Your task to perform on an android device: toggle notification dots Image 0: 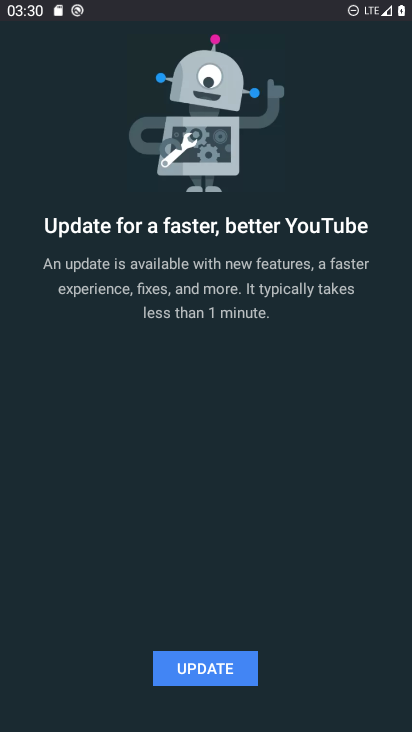
Step 0: press home button
Your task to perform on an android device: toggle notification dots Image 1: 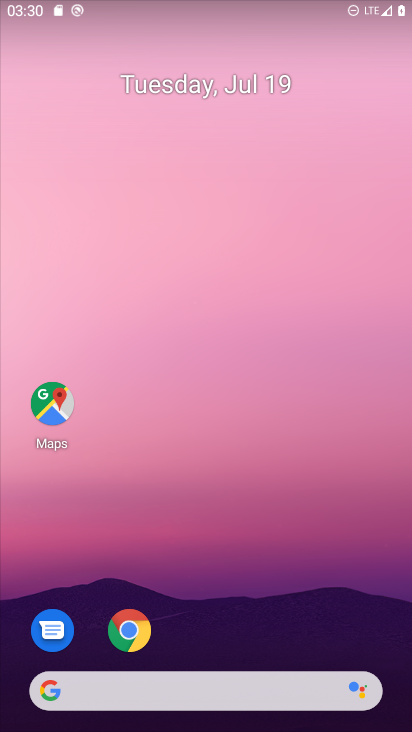
Step 1: drag from (378, 616) to (315, 197)
Your task to perform on an android device: toggle notification dots Image 2: 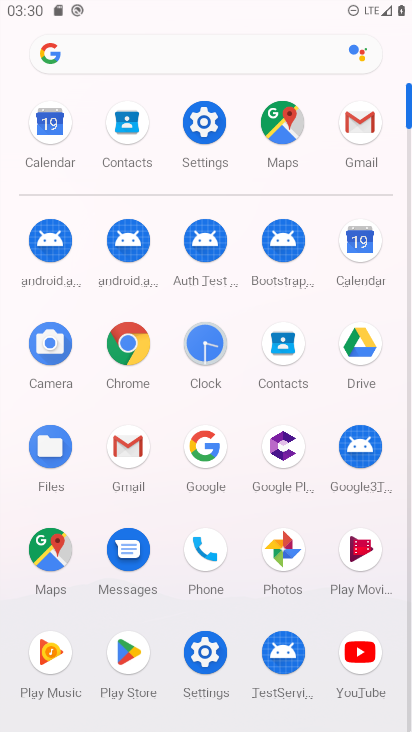
Step 2: click (203, 654)
Your task to perform on an android device: toggle notification dots Image 3: 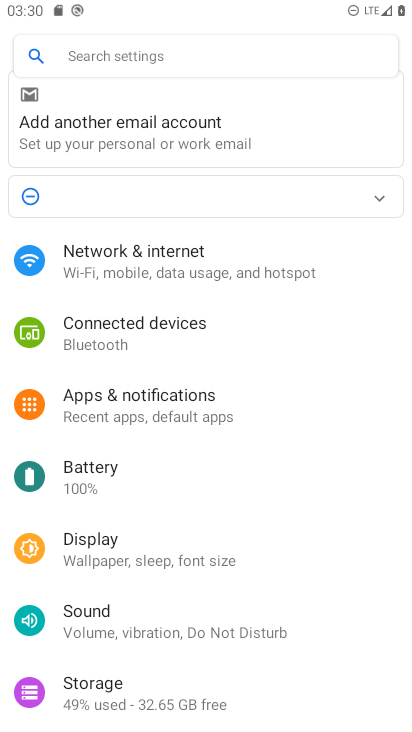
Step 3: click (139, 394)
Your task to perform on an android device: toggle notification dots Image 4: 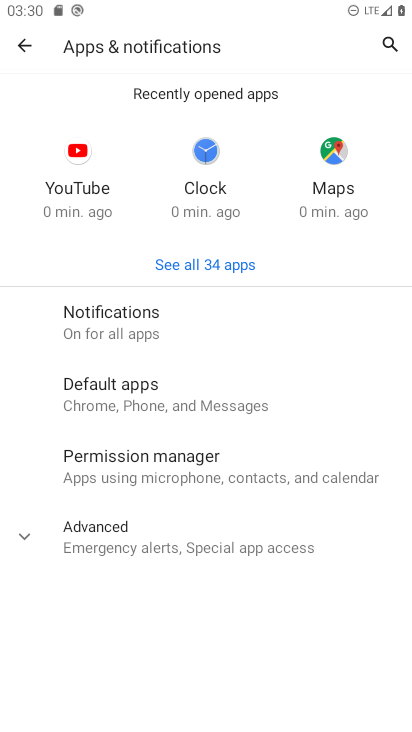
Step 4: click (138, 315)
Your task to perform on an android device: toggle notification dots Image 5: 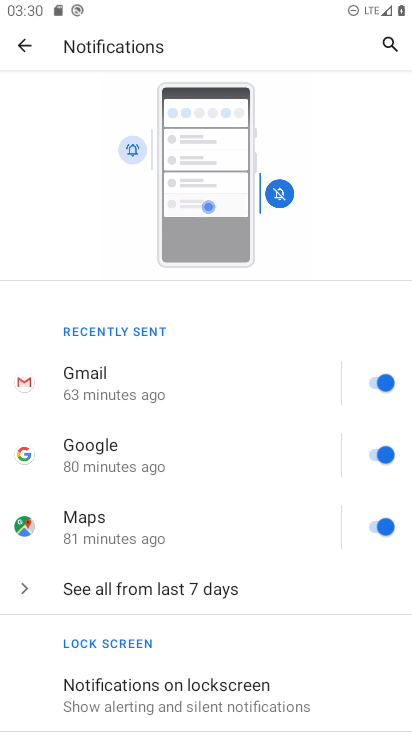
Step 5: drag from (257, 625) to (247, 171)
Your task to perform on an android device: toggle notification dots Image 6: 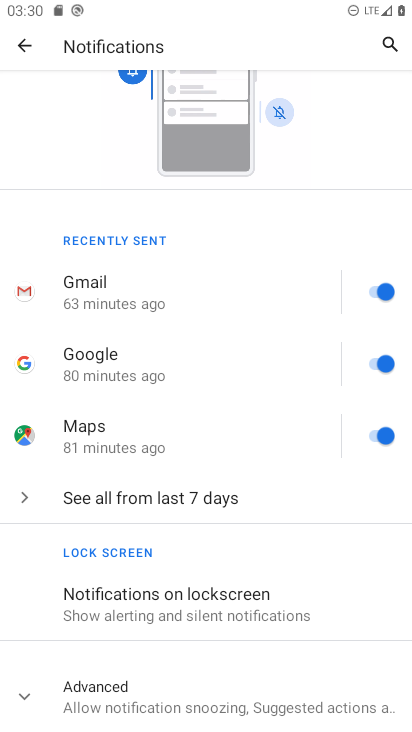
Step 6: click (21, 696)
Your task to perform on an android device: toggle notification dots Image 7: 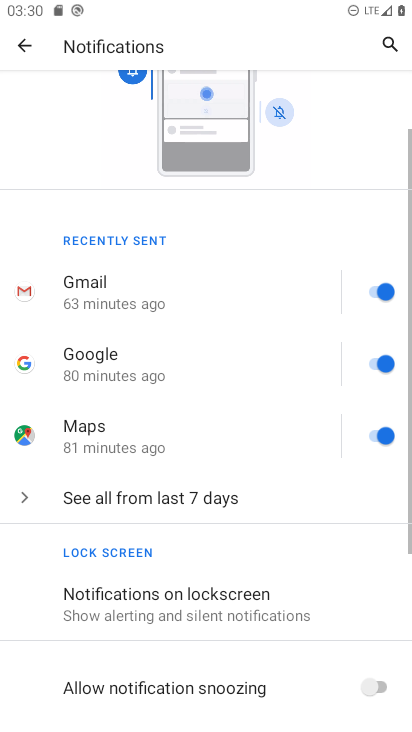
Step 7: drag from (264, 664) to (297, 208)
Your task to perform on an android device: toggle notification dots Image 8: 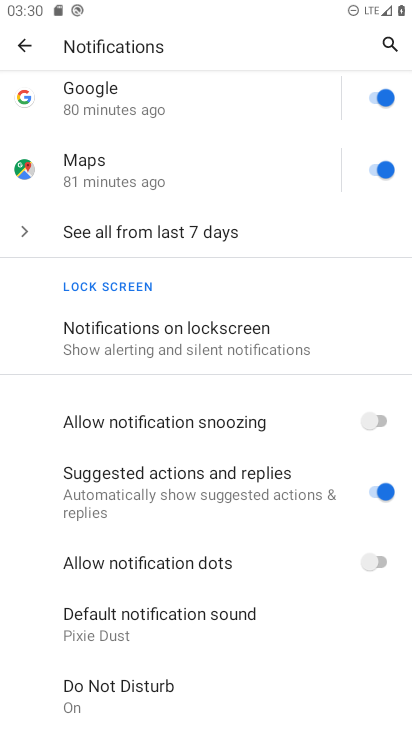
Step 8: click (381, 559)
Your task to perform on an android device: toggle notification dots Image 9: 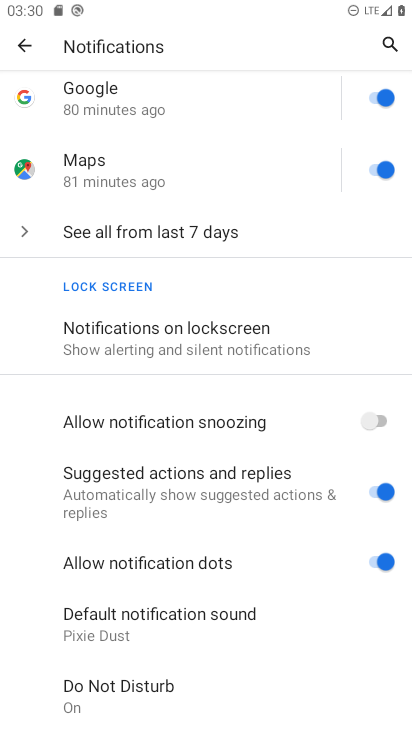
Step 9: task complete